Your task to perform on an android device: Show the shopping cart on target. Search for macbook air on target, select the first entry, and add it to the cart. Image 0: 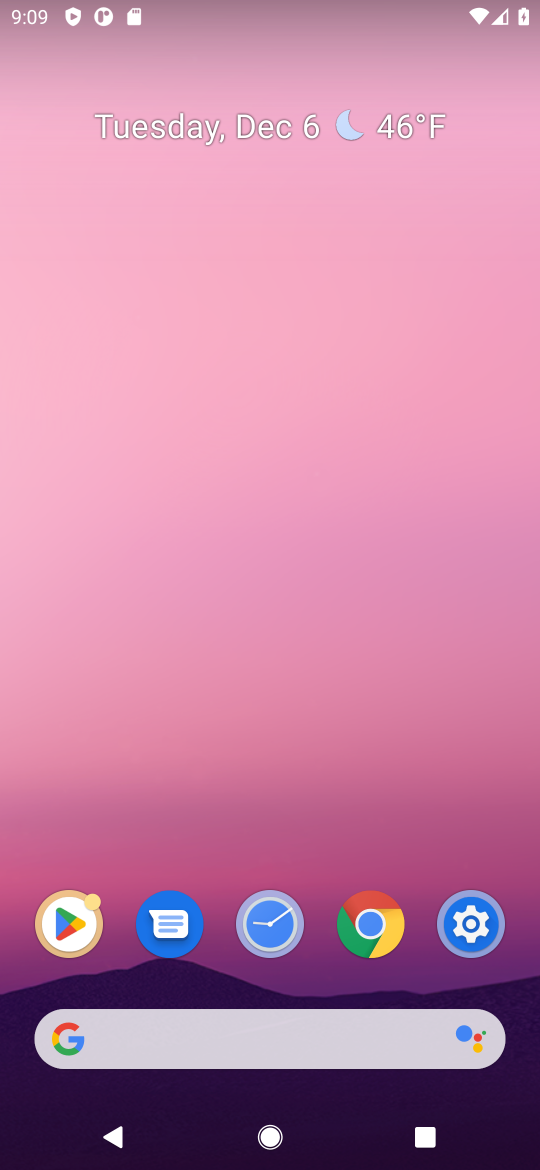
Step 0: click (249, 1033)
Your task to perform on an android device: Show the shopping cart on target. Search for macbook air on target, select the first entry, and add it to the cart. Image 1: 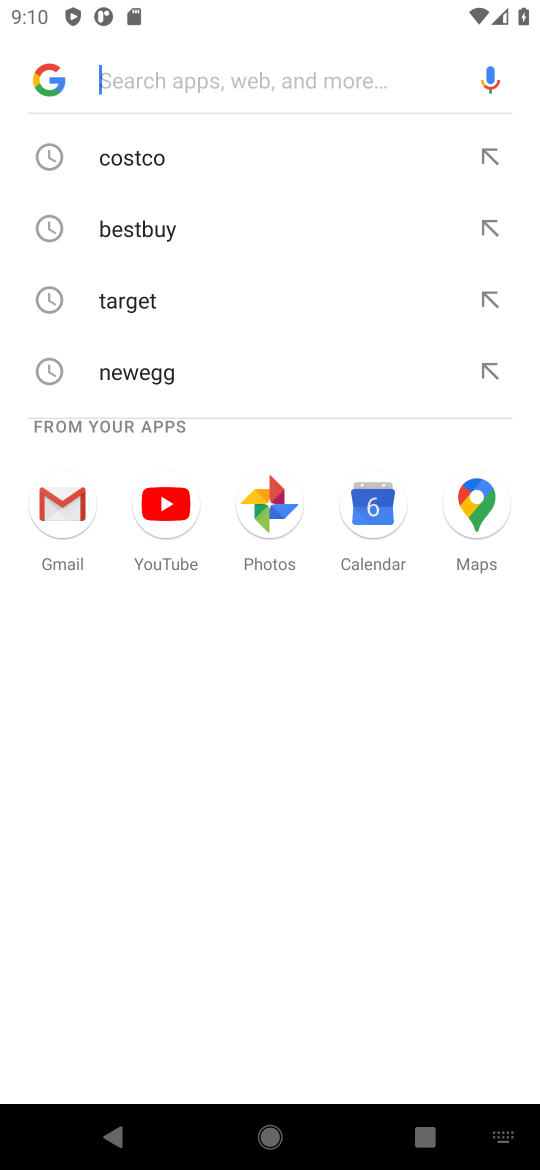
Step 1: type "target"
Your task to perform on an android device: Show the shopping cart on target. Search for macbook air on target, select the first entry, and add it to the cart. Image 2: 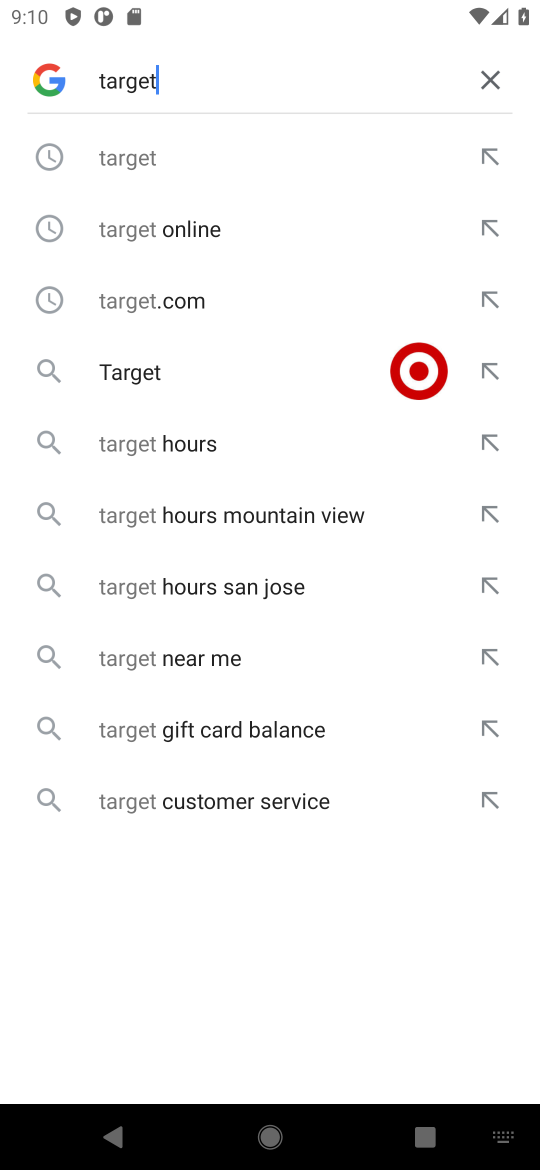
Step 2: click (166, 164)
Your task to perform on an android device: Show the shopping cart on target. Search for macbook air on target, select the first entry, and add it to the cart. Image 3: 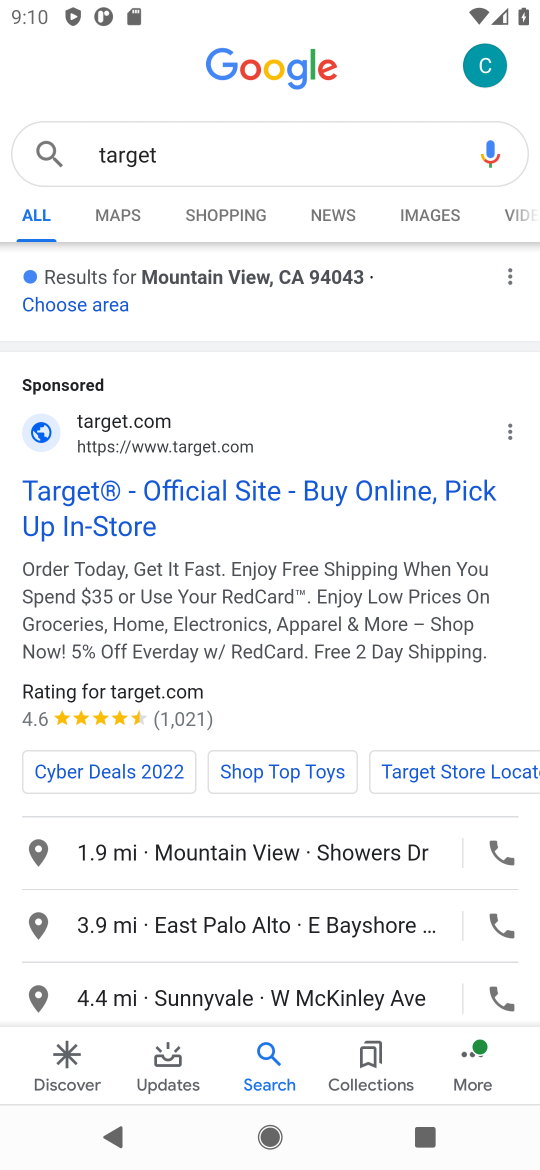
Step 3: click (153, 517)
Your task to perform on an android device: Show the shopping cart on target. Search for macbook air on target, select the first entry, and add it to the cart. Image 4: 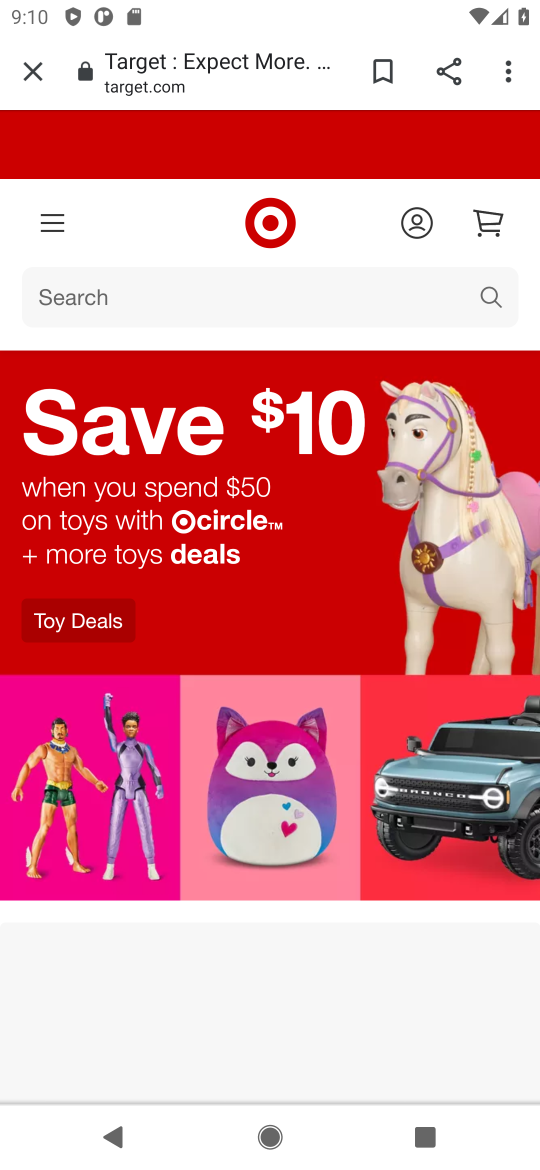
Step 4: click (129, 294)
Your task to perform on an android device: Show the shopping cart on target. Search for macbook air on target, select the first entry, and add it to the cart. Image 5: 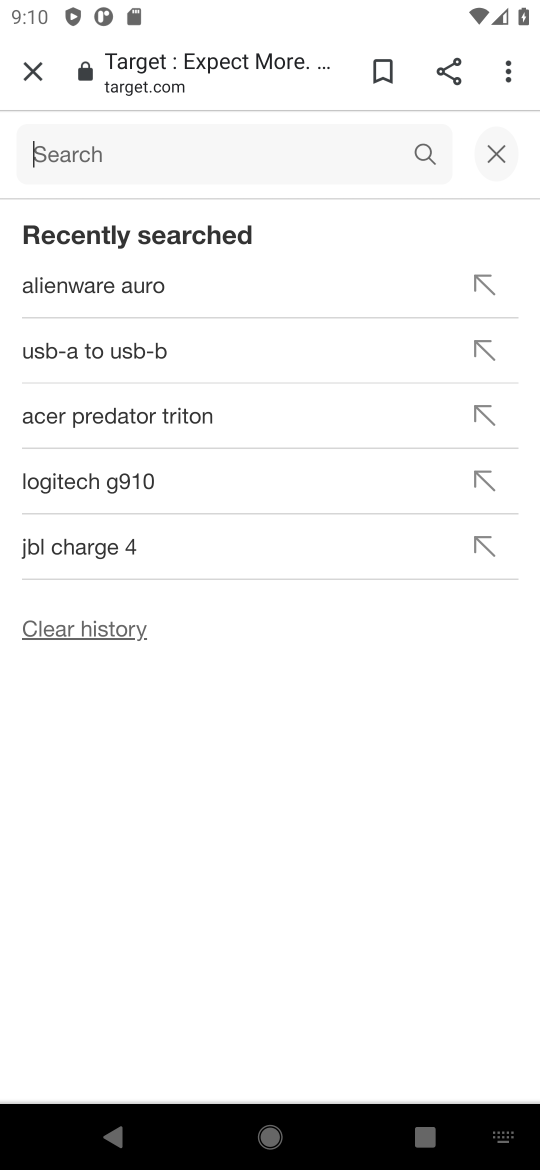
Step 5: type "macbook air"
Your task to perform on an android device: Show the shopping cart on target. Search for macbook air on target, select the first entry, and add it to the cart. Image 6: 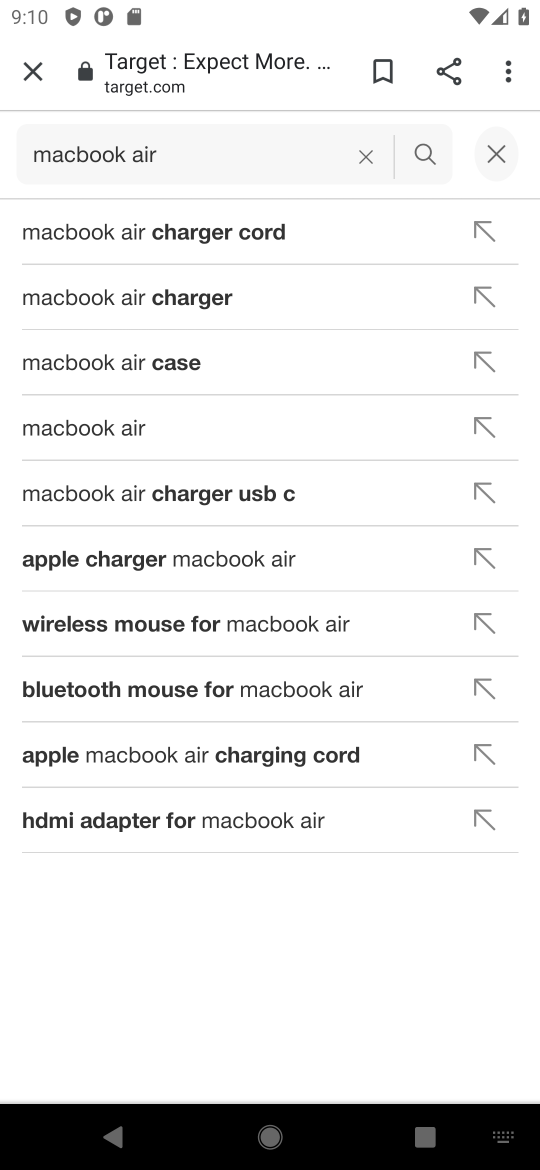
Step 6: click (437, 153)
Your task to perform on an android device: Show the shopping cart on target. Search for macbook air on target, select the first entry, and add it to the cart. Image 7: 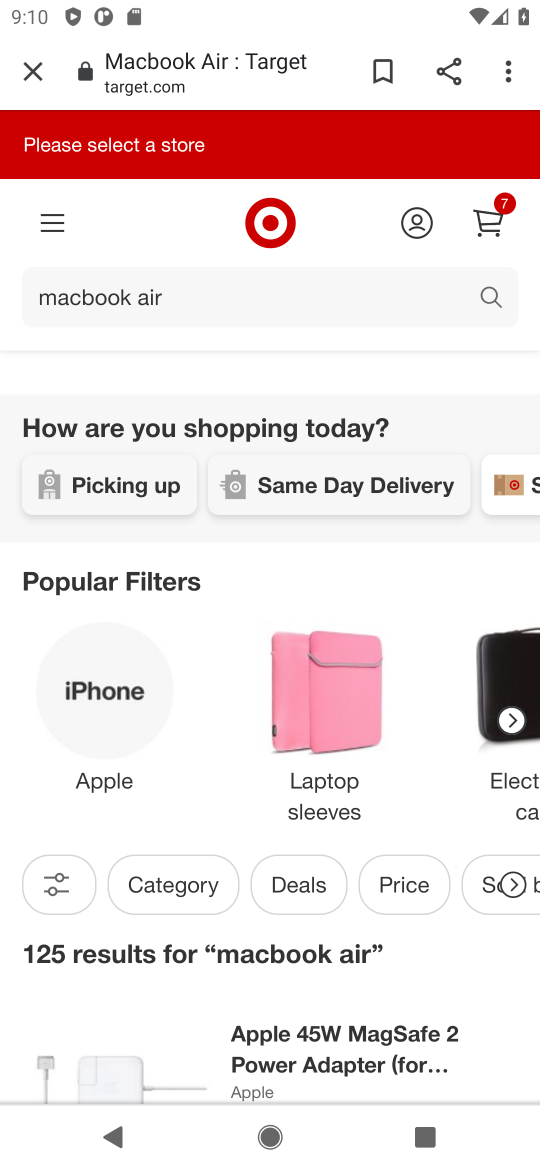
Step 7: drag from (189, 983) to (263, 498)
Your task to perform on an android device: Show the shopping cart on target. Search for macbook air on target, select the first entry, and add it to the cart. Image 8: 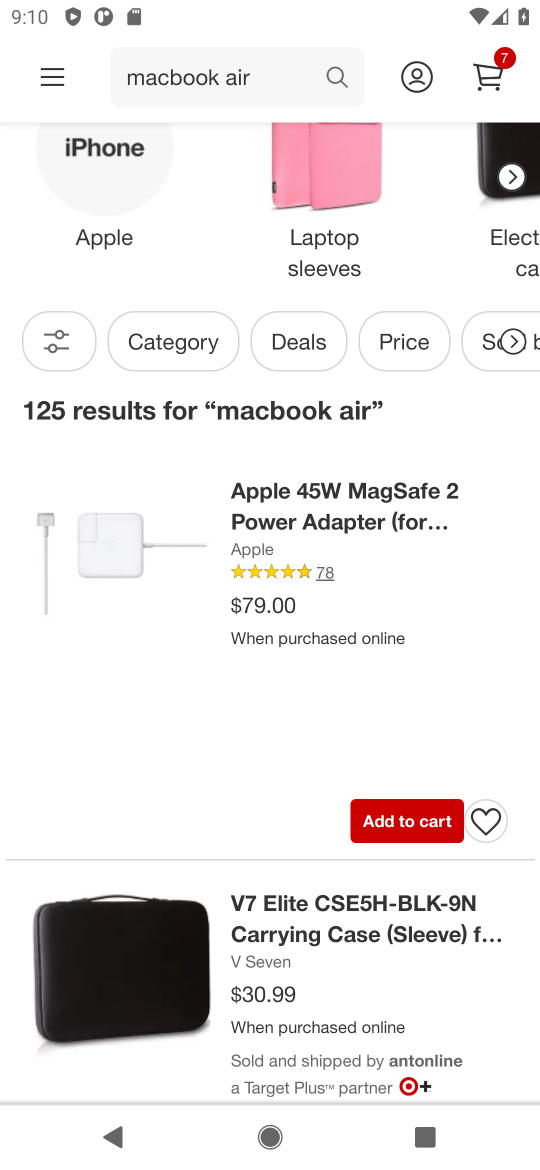
Step 8: click (391, 831)
Your task to perform on an android device: Show the shopping cart on target. Search for macbook air on target, select the first entry, and add it to the cart. Image 9: 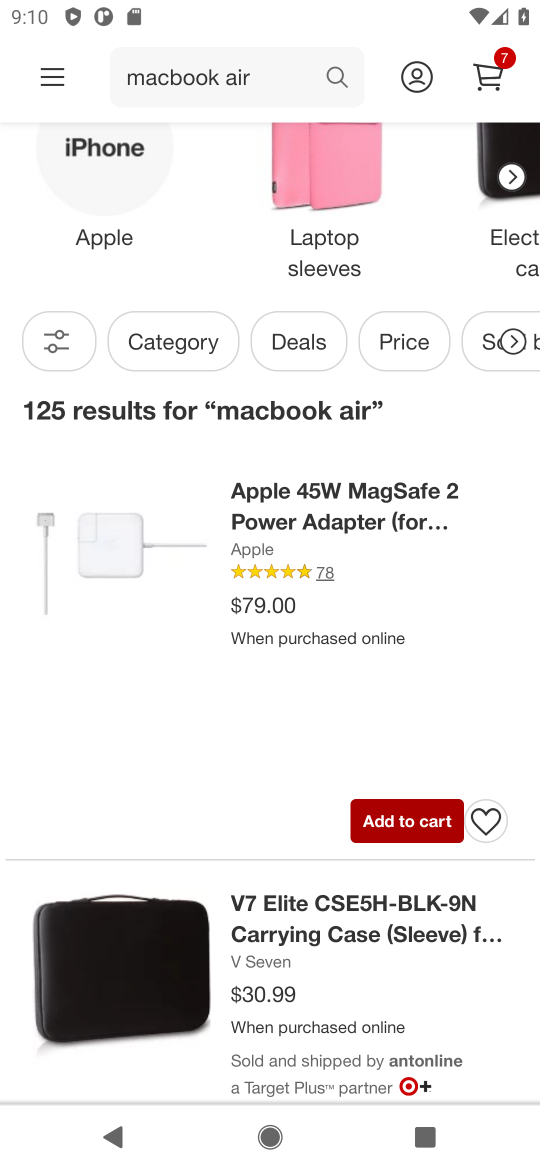
Step 9: task complete